Your task to perform on an android device: set the timer Image 0: 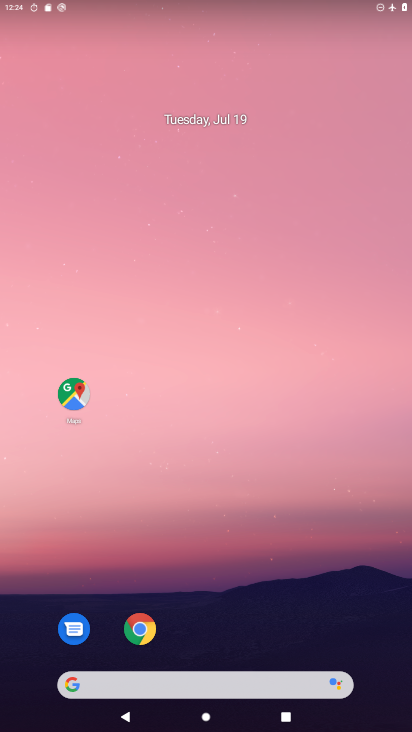
Step 0: drag from (371, 646) to (317, 95)
Your task to perform on an android device: set the timer Image 1: 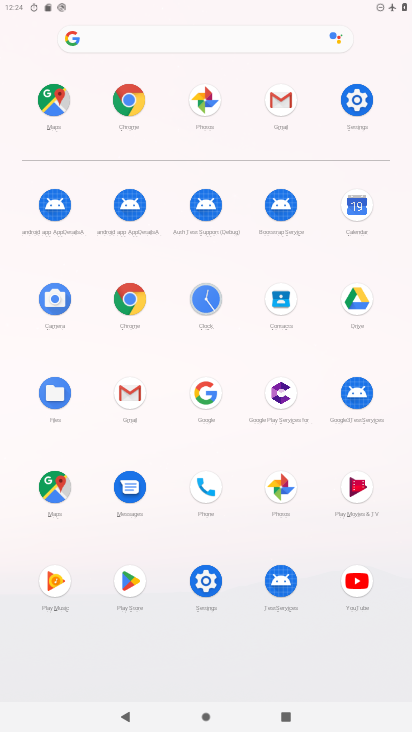
Step 1: click (215, 297)
Your task to perform on an android device: set the timer Image 2: 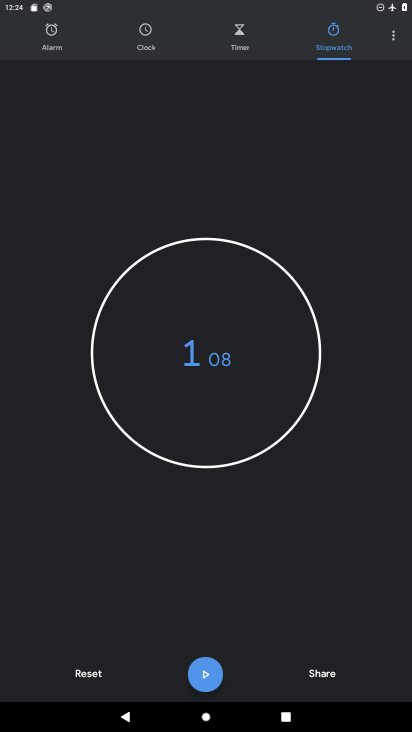
Step 2: click (395, 37)
Your task to perform on an android device: set the timer Image 3: 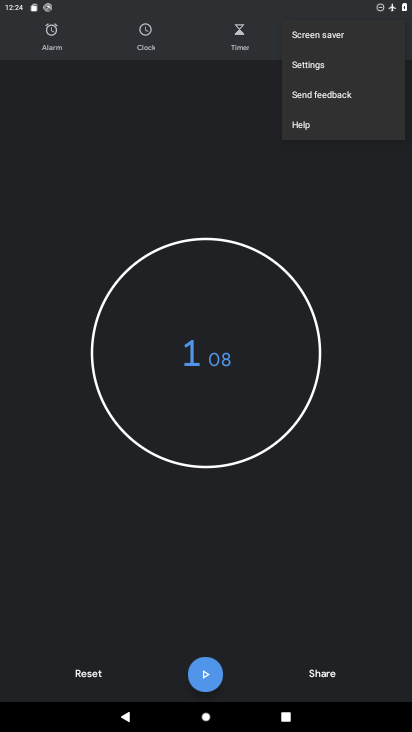
Step 3: click (232, 43)
Your task to perform on an android device: set the timer Image 4: 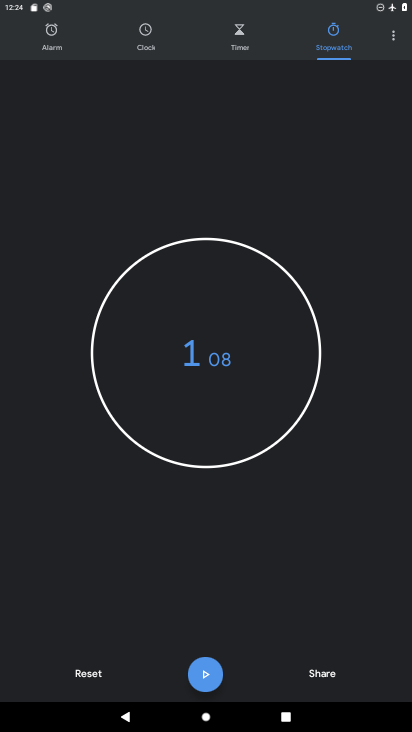
Step 4: click (232, 43)
Your task to perform on an android device: set the timer Image 5: 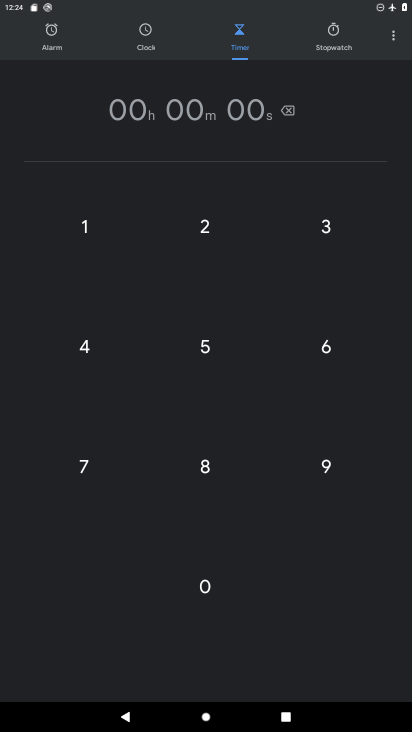
Step 5: click (202, 354)
Your task to perform on an android device: set the timer Image 6: 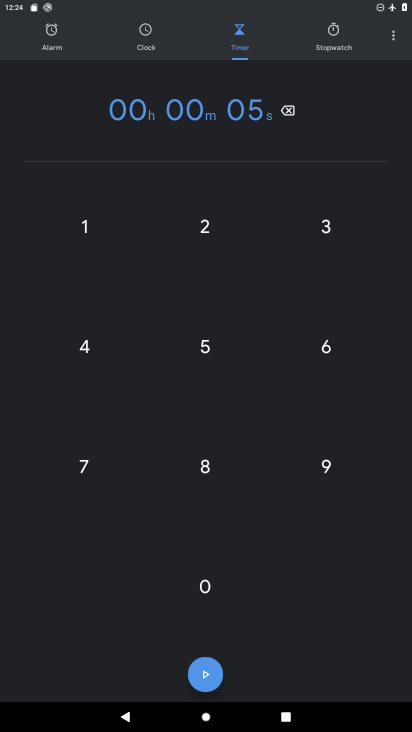
Step 6: task complete